Your task to perform on an android device: turn off location Image 0: 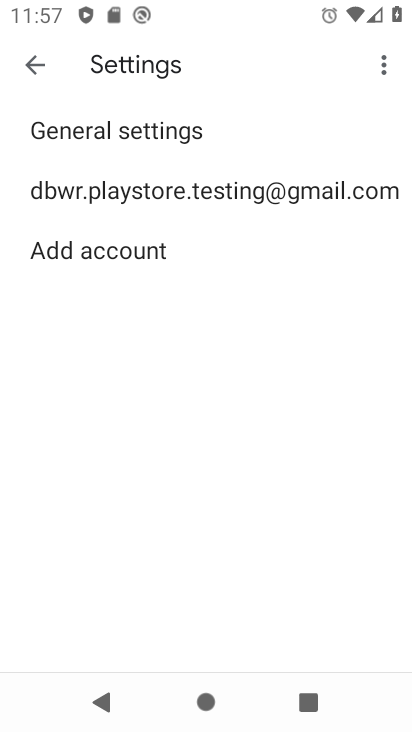
Step 0: press home button
Your task to perform on an android device: turn off location Image 1: 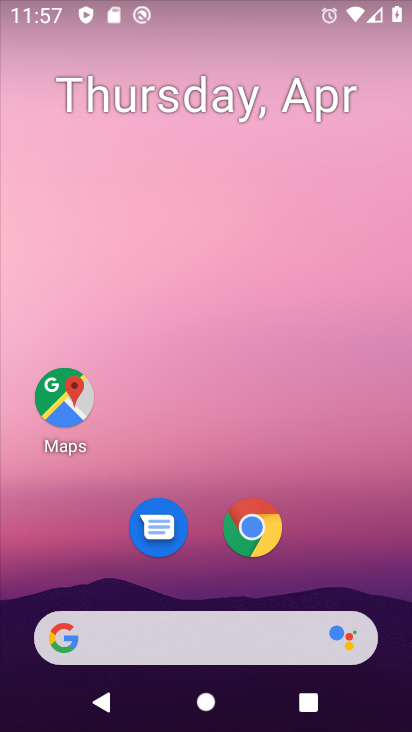
Step 1: drag from (208, 592) to (226, 117)
Your task to perform on an android device: turn off location Image 2: 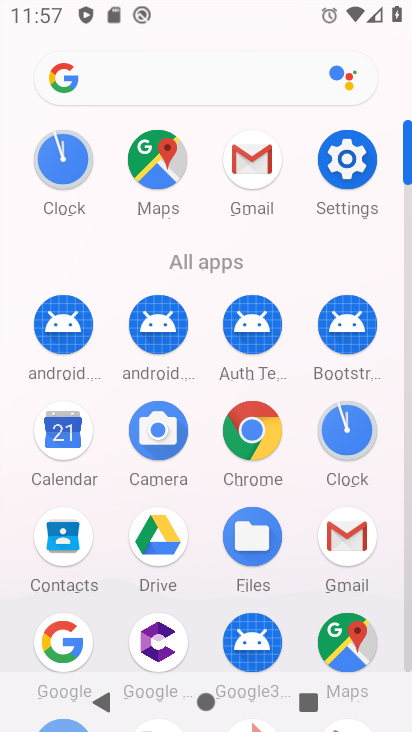
Step 2: click (332, 169)
Your task to perform on an android device: turn off location Image 3: 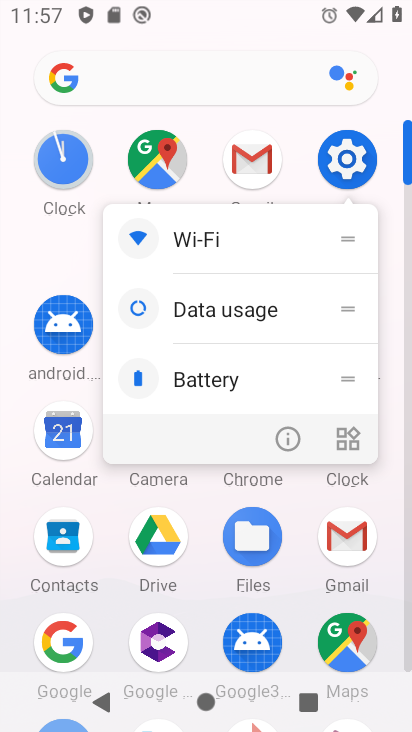
Step 3: click (345, 156)
Your task to perform on an android device: turn off location Image 4: 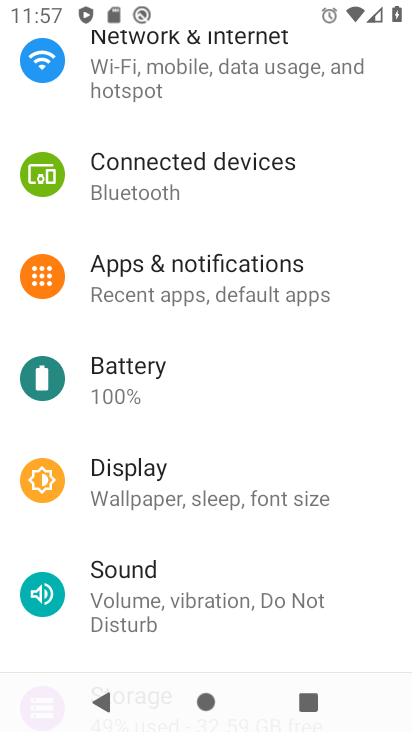
Step 4: drag from (225, 288) to (265, 180)
Your task to perform on an android device: turn off location Image 5: 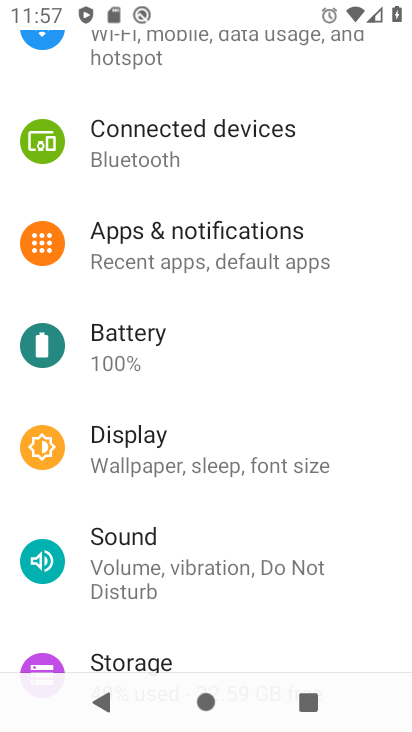
Step 5: click (267, 247)
Your task to perform on an android device: turn off location Image 6: 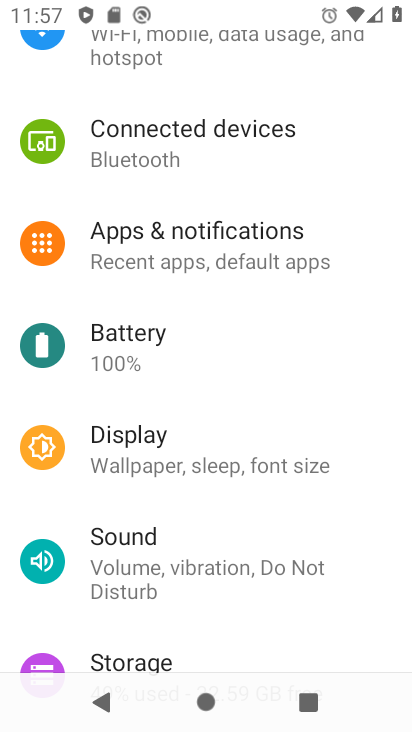
Step 6: drag from (249, 592) to (282, 312)
Your task to perform on an android device: turn off location Image 7: 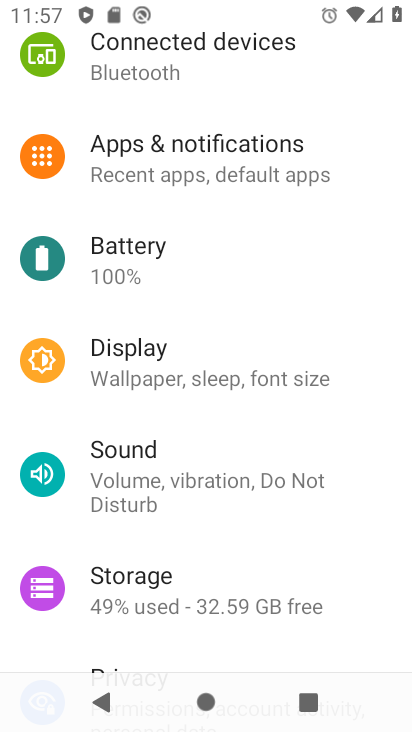
Step 7: drag from (243, 534) to (291, 296)
Your task to perform on an android device: turn off location Image 8: 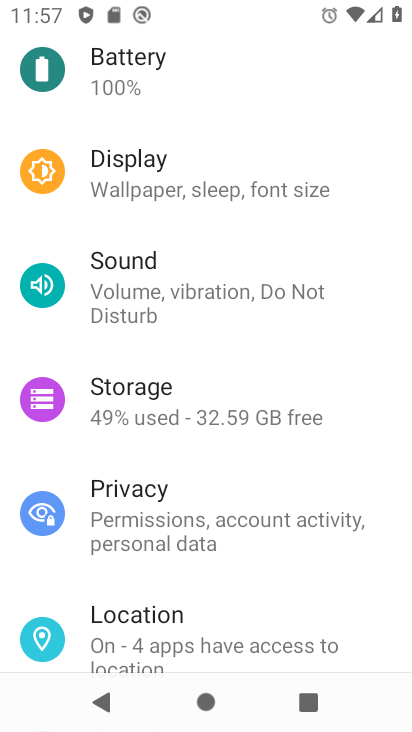
Step 8: click (180, 614)
Your task to perform on an android device: turn off location Image 9: 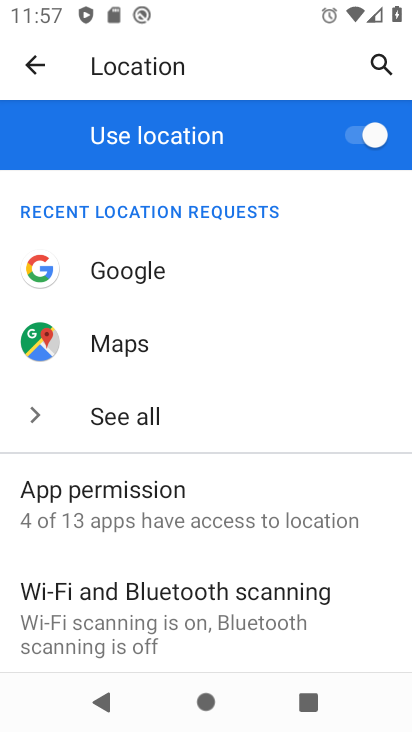
Step 9: click (354, 135)
Your task to perform on an android device: turn off location Image 10: 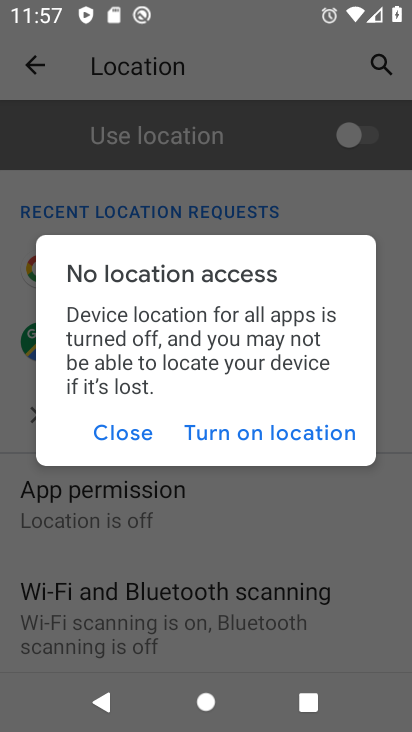
Step 10: click (112, 429)
Your task to perform on an android device: turn off location Image 11: 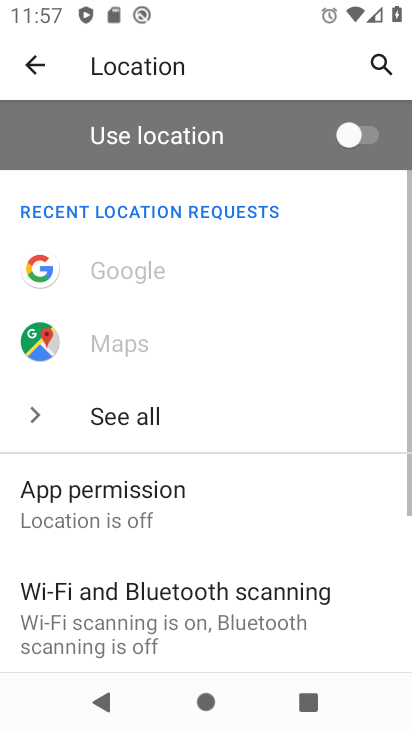
Step 11: task complete